Your task to perform on an android device: Is it going to rain tomorrow? Image 0: 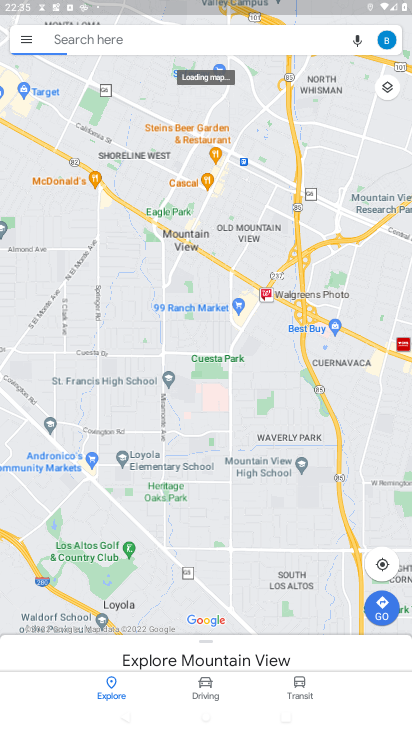
Step 0: press home button
Your task to perform on an android device: Is it going to rain tomorrow? Image 1: 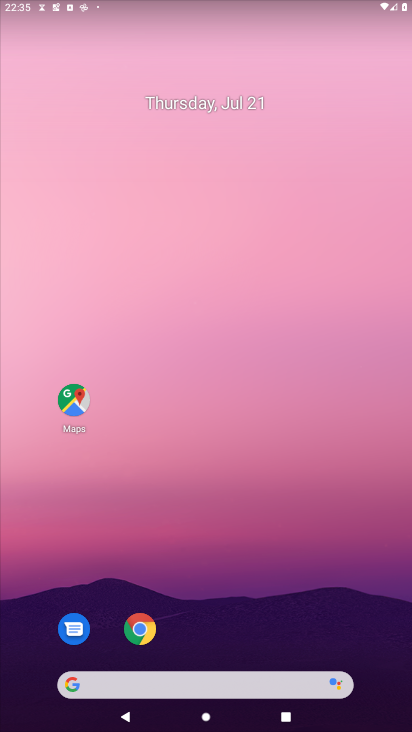
Step 1: drag from (273, 629) to (277, 188)
Your task to perform on an android device: Is it going to rain tomorrow? Image 2: 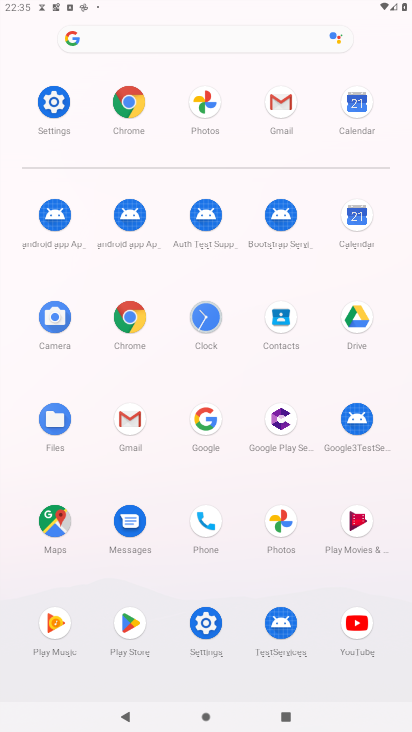
Step 2: click (132, 323)
Your task to perform on an android device: Is it going to rain tomorrow? Image 3: 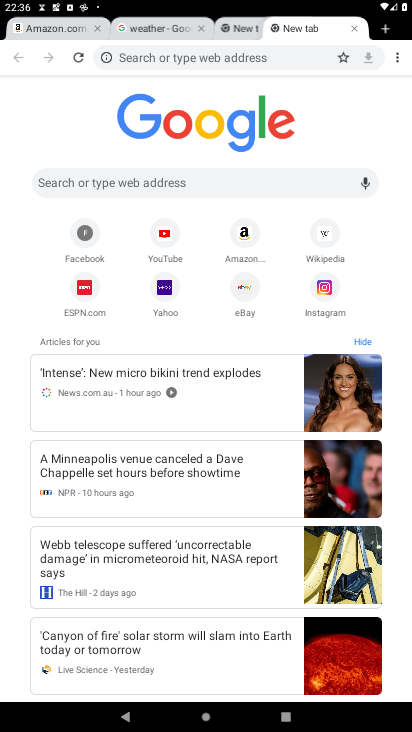
Step 3: click (153, 24)
Your task to perform on an android device: Is it going to rain tomorrow? Image 4: 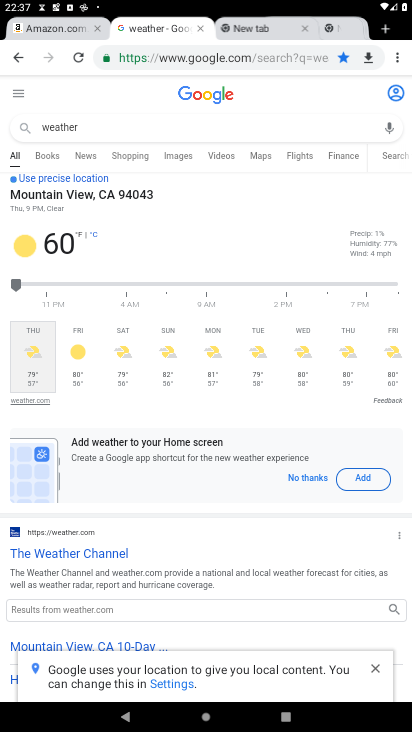
Step 4: task complete